Your task to perform on an android device: toggle wifi Image 0: 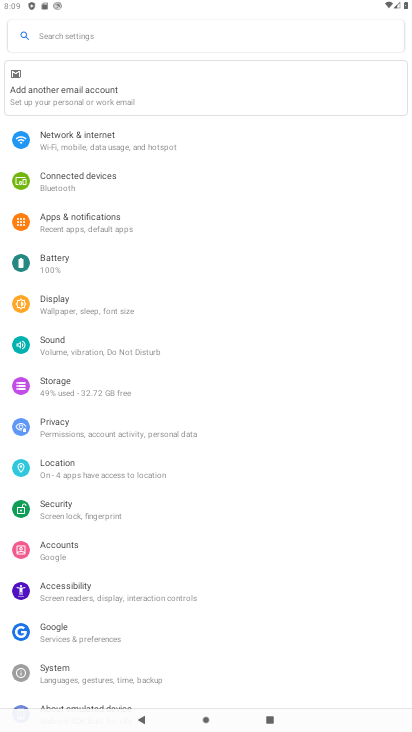
Step 0: click (80, 134)
Your task to perform on an android device: toggle wifi Image 1: 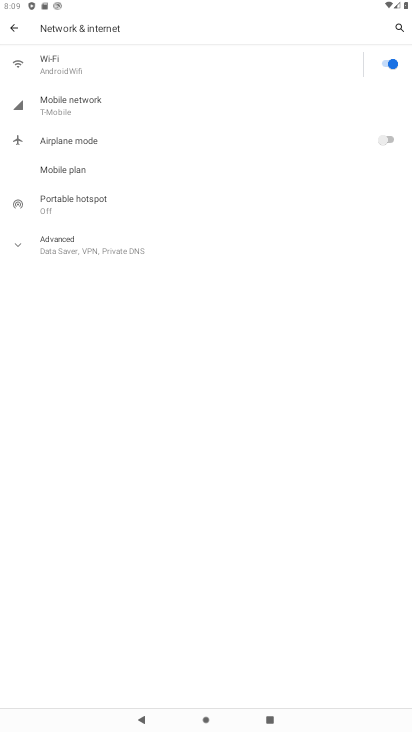
Step 1: click (391, 60)
Your task to perform on an android device: toggle wifi Image 2: 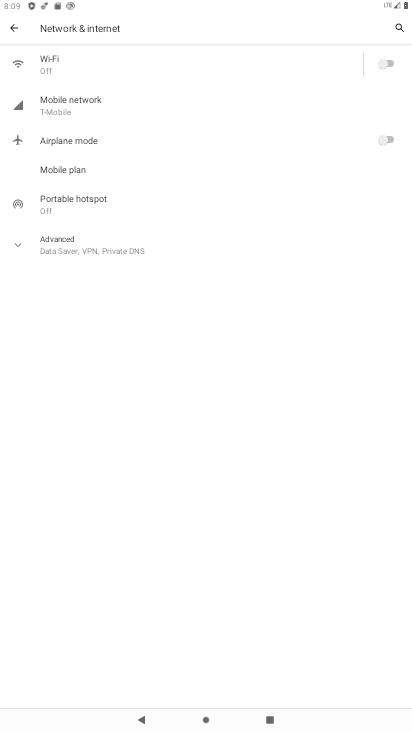
Step 2: task complete